Your task to perform on an android device: Open ESPN.com Image 0: 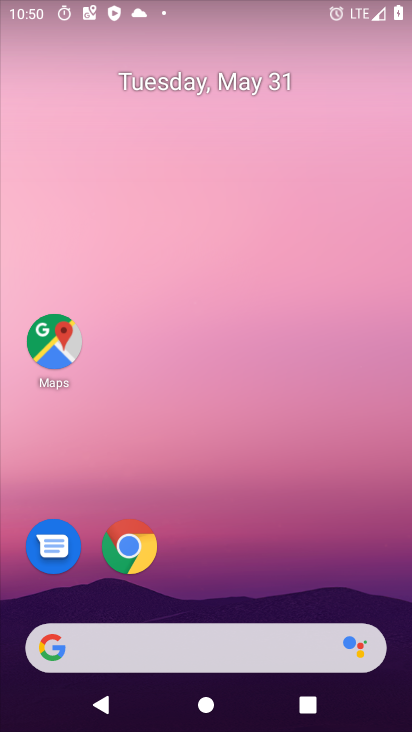
Step 0: click (123, 553)
Your task to perform on an android device: Open ESPN.com Image 1: 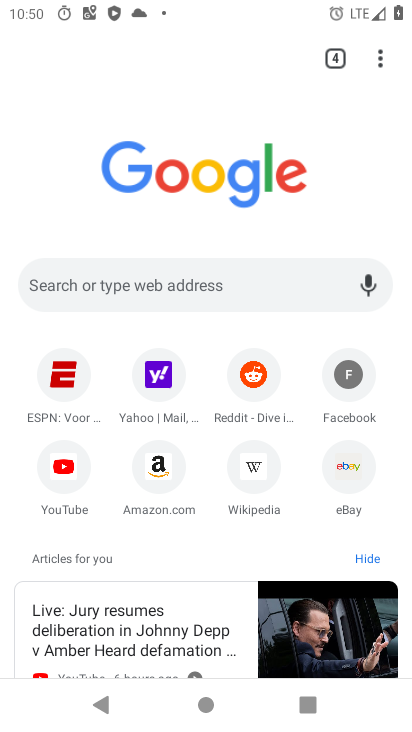
Step 1: click (338, 55)
Your task to perform on an android device: Open ESPN.com Image 2: 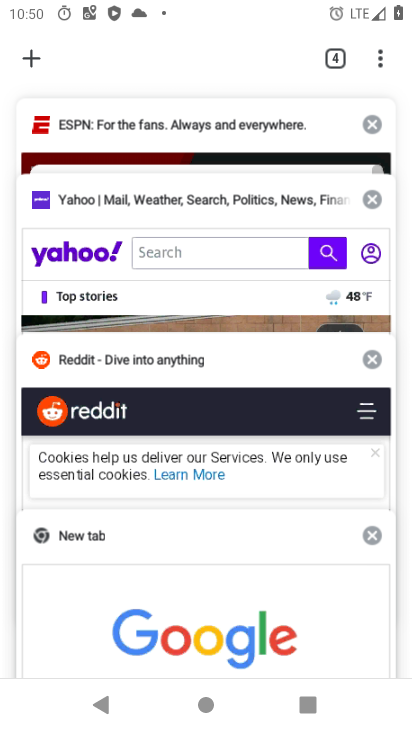
Step 2: click (212, 109)
Your task to perform on an android device: Open ESPN.com Image 3: 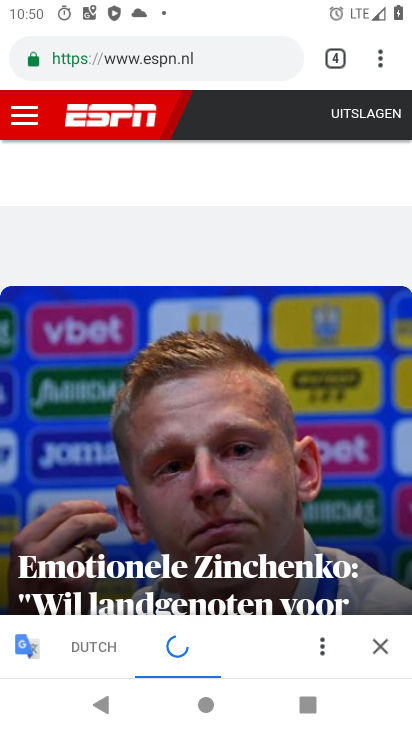
Step 3: task complete